Your task to perform on an android device: View the shopping cart on amazon. Search for "dell xps" on amazon, select the first entry, and add it to the cart. Image 0: 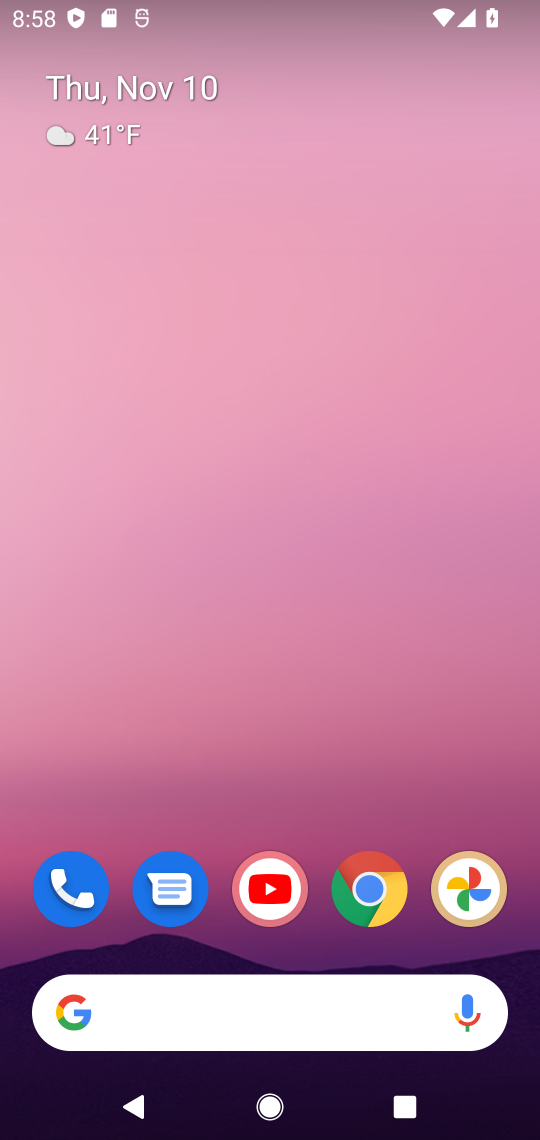
Step 0: press home button
Your task to perform on an android device: View the shopping cart on amazon. Search for "dell xps" on amazon, select the first entry, and add it to the cart. Image 1: 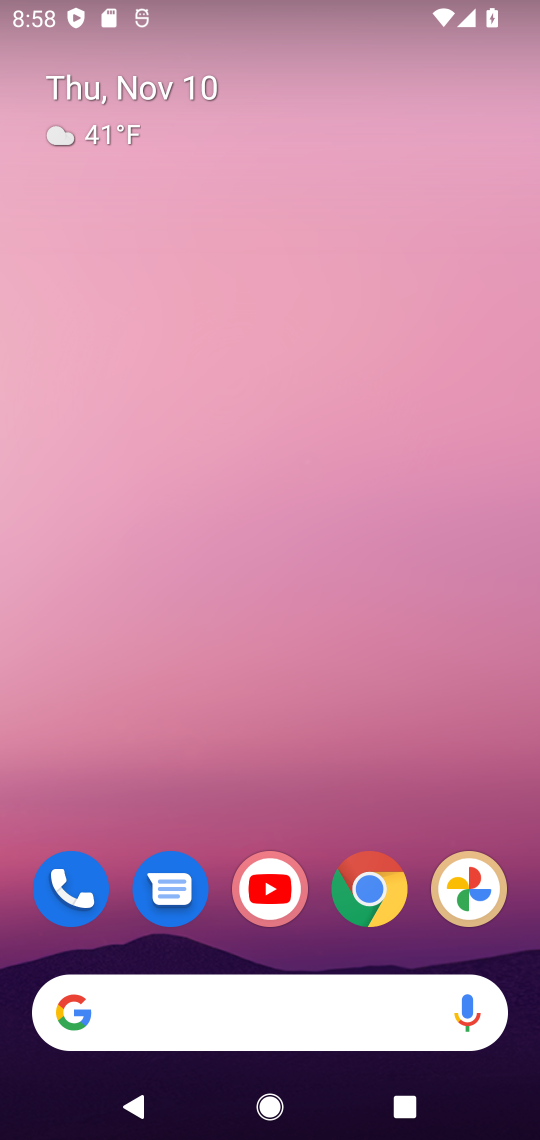
Step 1: click (370, 891)
Your task to perform on an android device: View the shopping cart on amazon. Search for "dell xps" on amazon, select the first entry, and add it to the cart. Image 2: 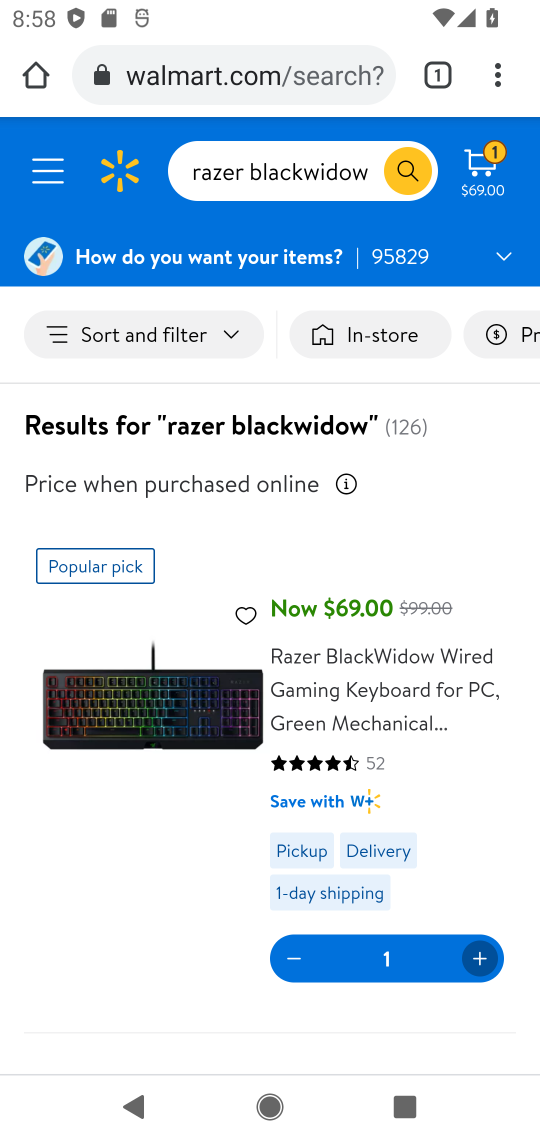
Step 2: click (309, 70)
Your task to perform on an android device: View the shopping cart on amazon. Search for "dell xps" on amazon, select the first entry, and add it to the cart. Image 3: 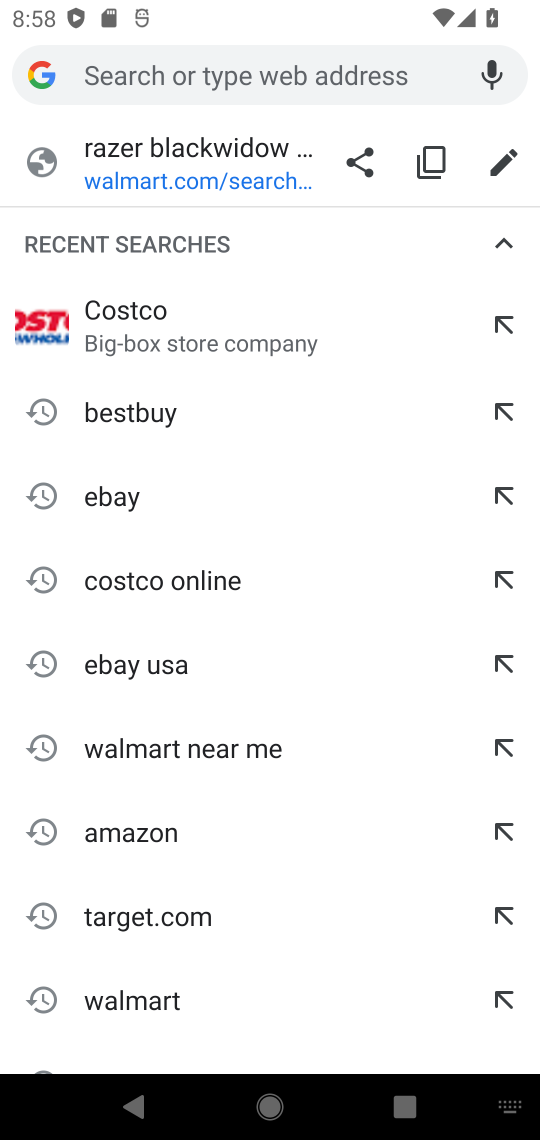
Step 3: click (121, 830)
Your task to perform on an android device: View the shopping cart on amazon. Search for "dell xps" on amazon, select the first entry, and add it to the cart. Image 4: 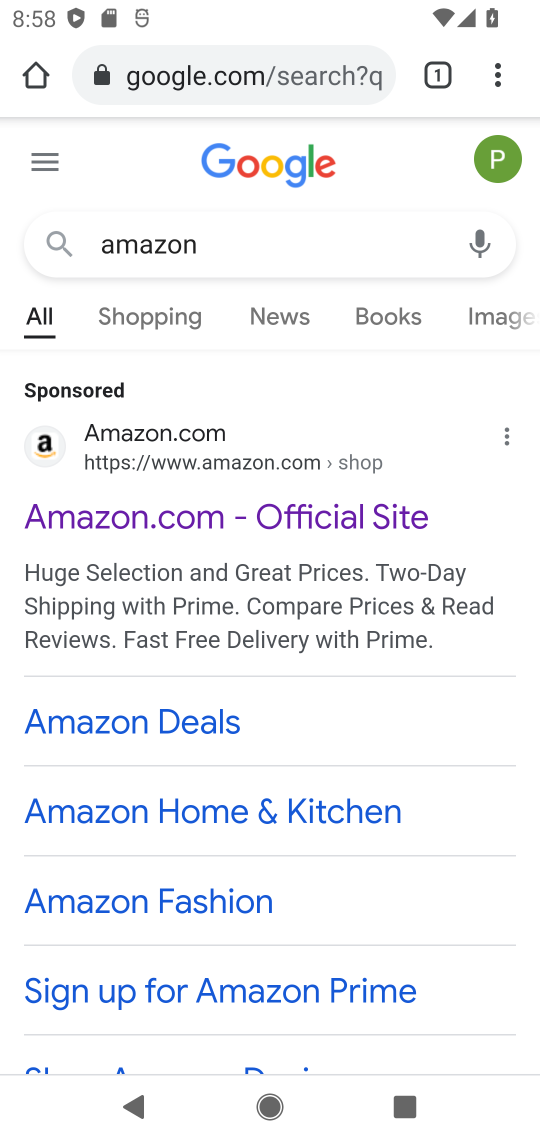
Step 4: click (191, 516)
Your task to perform on an android device: View the shopping cart on amazon. Search for "dell xps" on amazon, select the first entry, and add it to the cart. Image 5: 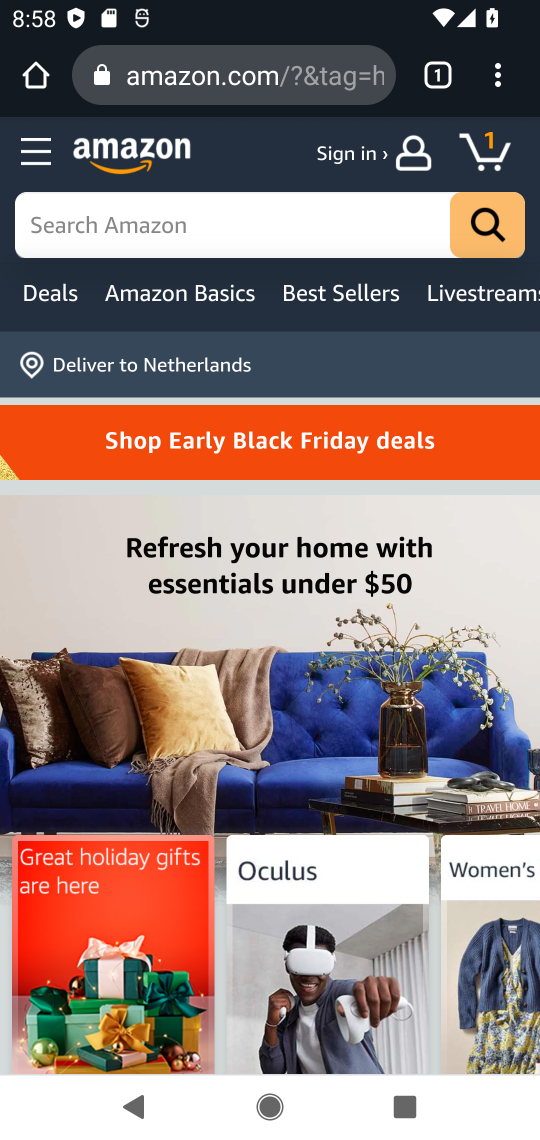
Step 5: click (480, 146)
Your task to perform on an android device: View the shopping cart on amazon. Search for "dell xps" on amazon, select the first entry, and add it to the cart. Image 6: 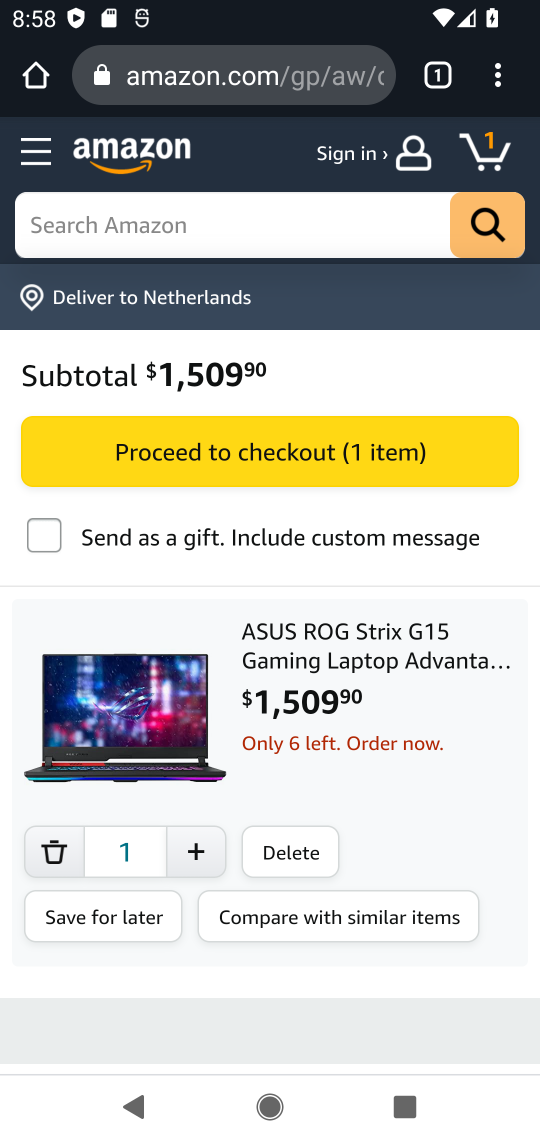
Step 6: click (305, 850)
Your task to perform on an android device: View the shopping cart on amazon. Search for "dell xps" on amazon, select the first entry, and add it to the cart. Image 7: 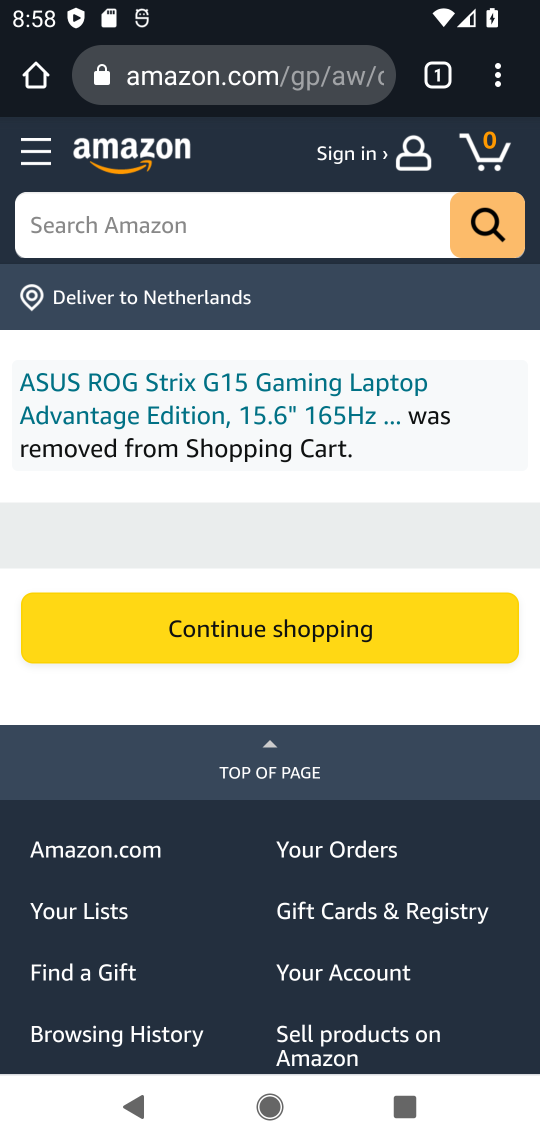
Step 7: click (164, 223)
Your task to perform on an android device: View the shopping cart on amazon. Search for "dell xps" on amazon, select the first entry, and add it to the cart. Image 8: 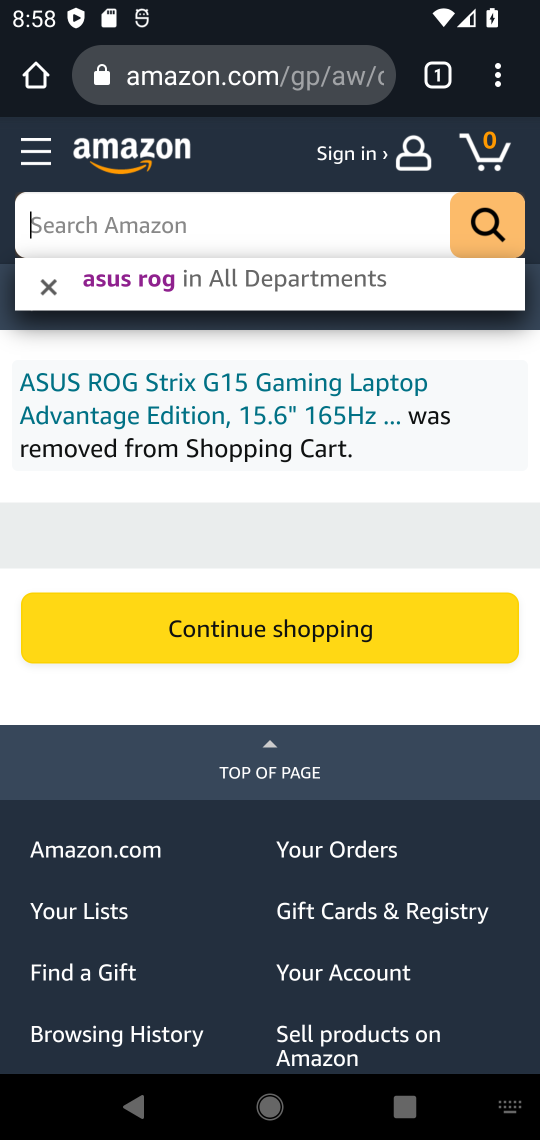
Step 8: type "dell xps"
Your task to perform on an android device: View the shopping cart on amazon. Search for "dell xps" on amazon, select the first entry, and add it to the cart. Image 9: 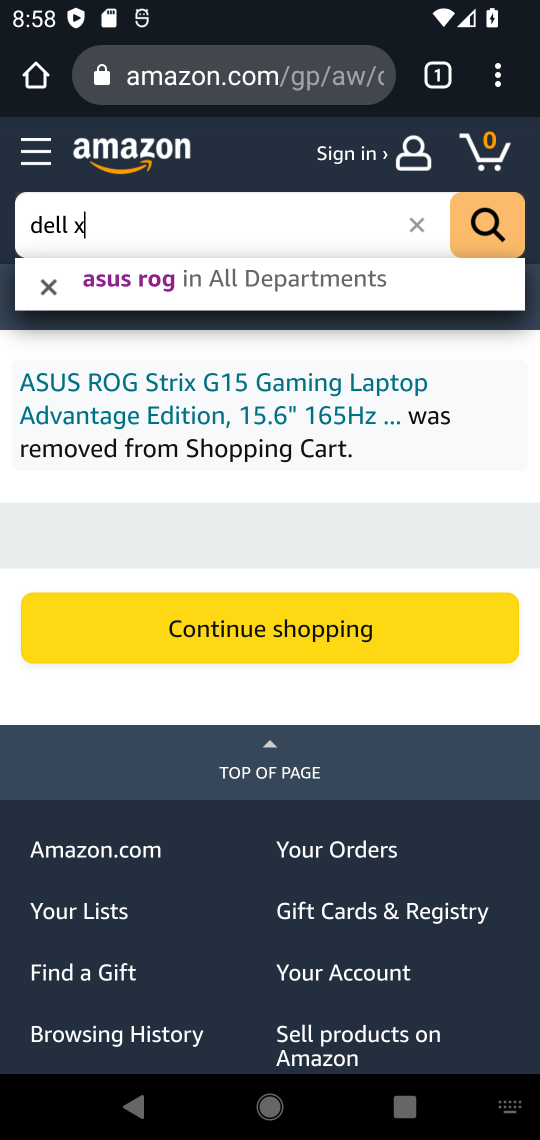
Step 9: press enter
Your task to perform on an android device: View the shopping cart on amazon. Search for "dell xps" on amazon, select the first entry, and add it to the cart. Image 10: 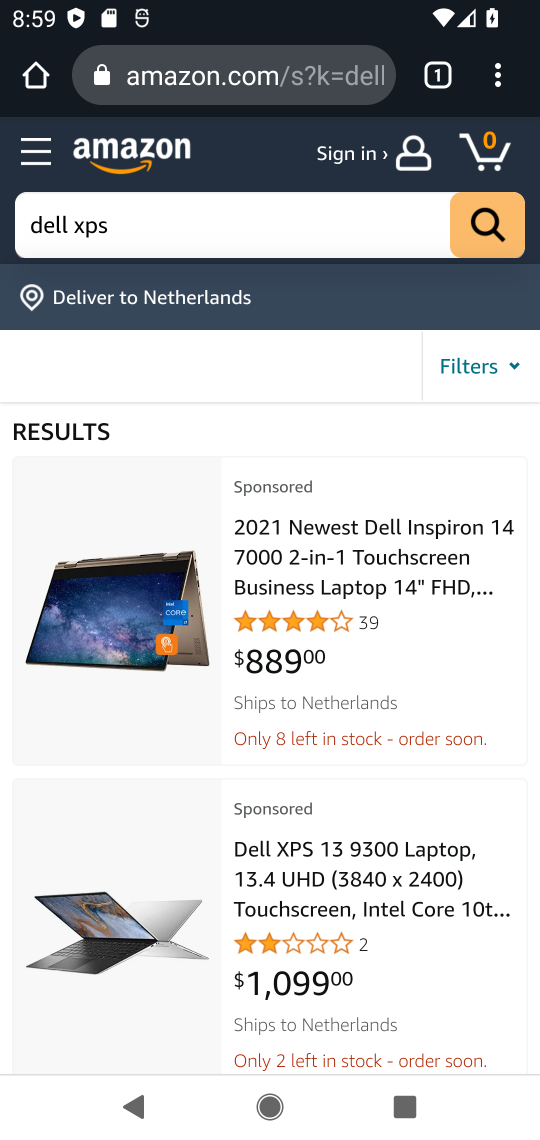
Step 10: click (406, 573)
Your task to perform on an android device: View the shopping cart on amazon. Search for "dell xps" on amazon, select the first entry, and add it to the cart. Image 11: 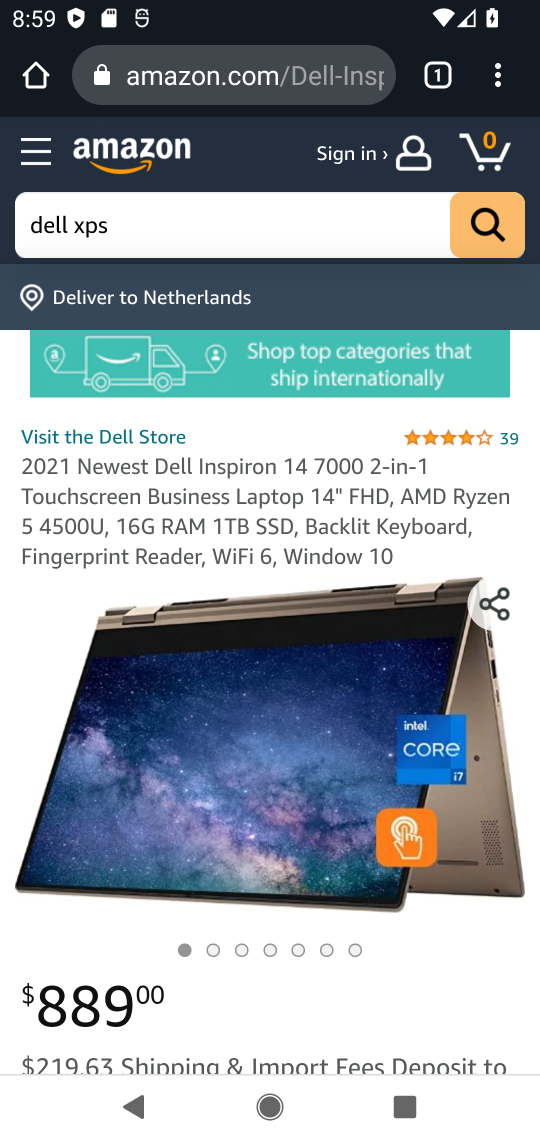
Step 11: task complete